Your task to perform on an android device: turn on data saver in the chrome app Image 0: 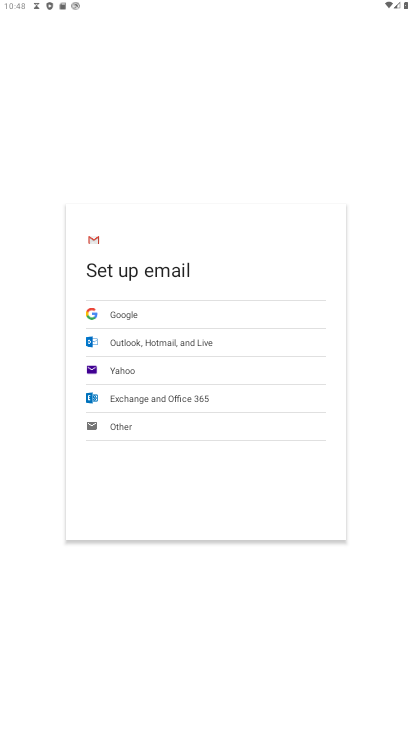
Step 0: press home button
Your task to perform on an android device: turn on data saver in the chrome app Image 1: 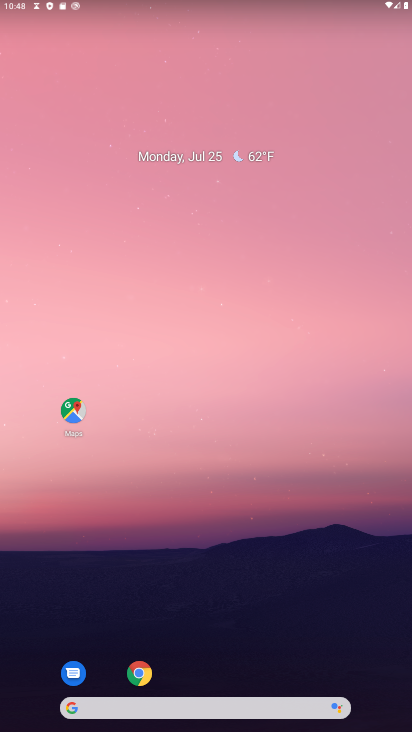
Step 1: click (131, 678)
Your task to perform on an android device: turn on data saver in the chrome app Image 2: 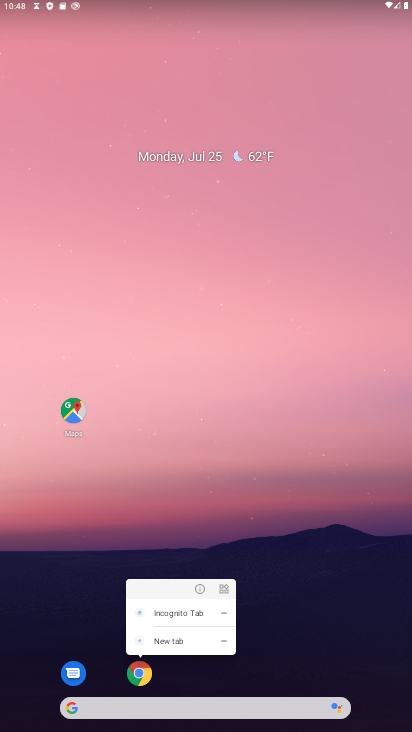
Step 2: click (139, 665)
Your task to perform on an android device: turn on data saver in the chrome app Image 3: 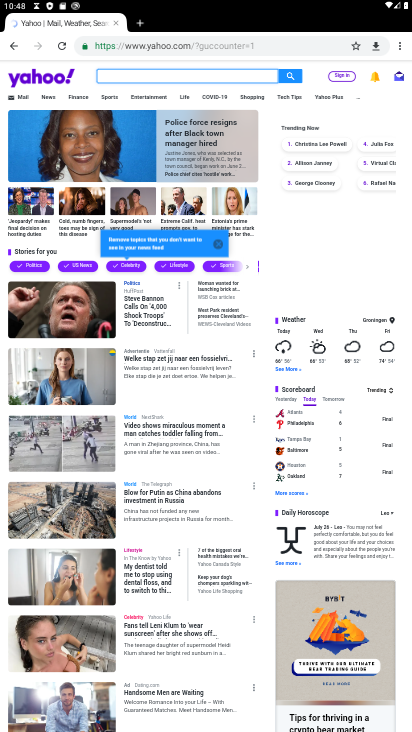
Step 3: drag from (398, 48) to (297, 306)
Your task to perform on an android device: turn on data saver in the chrome app Image 4: 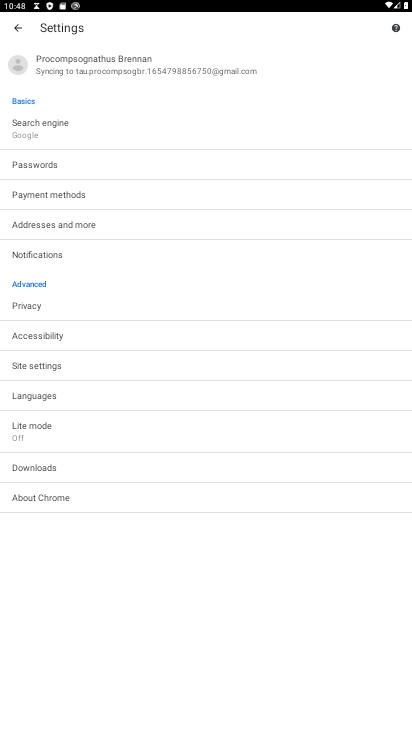
Step 4: click (31, 435)
Your task to perform on an android device: turn on data saver in the chrome app Image 5: 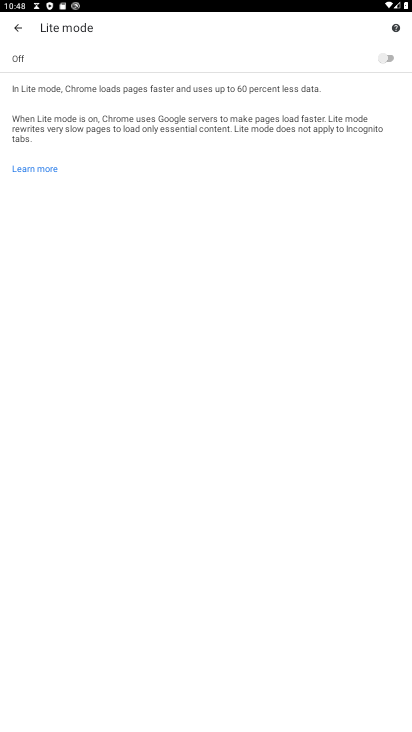
Step 5: click (391, 54)
Your task to perform on an android device: turn on data saver in the chrome app Image 6: 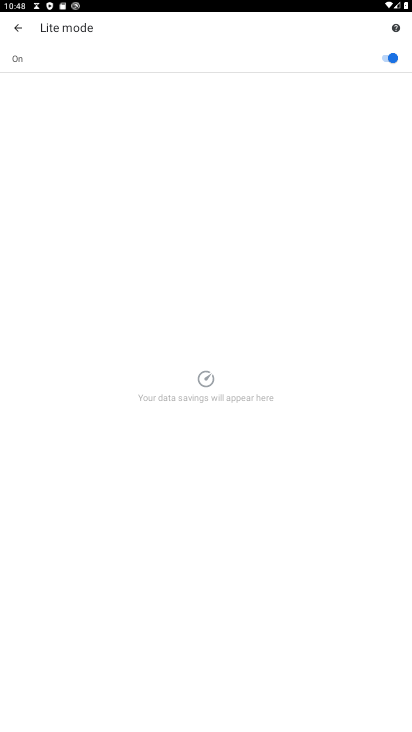
Step 6: task complete